Your task to perform on an android device: uninstall "Fetch Rewards" Image 0: 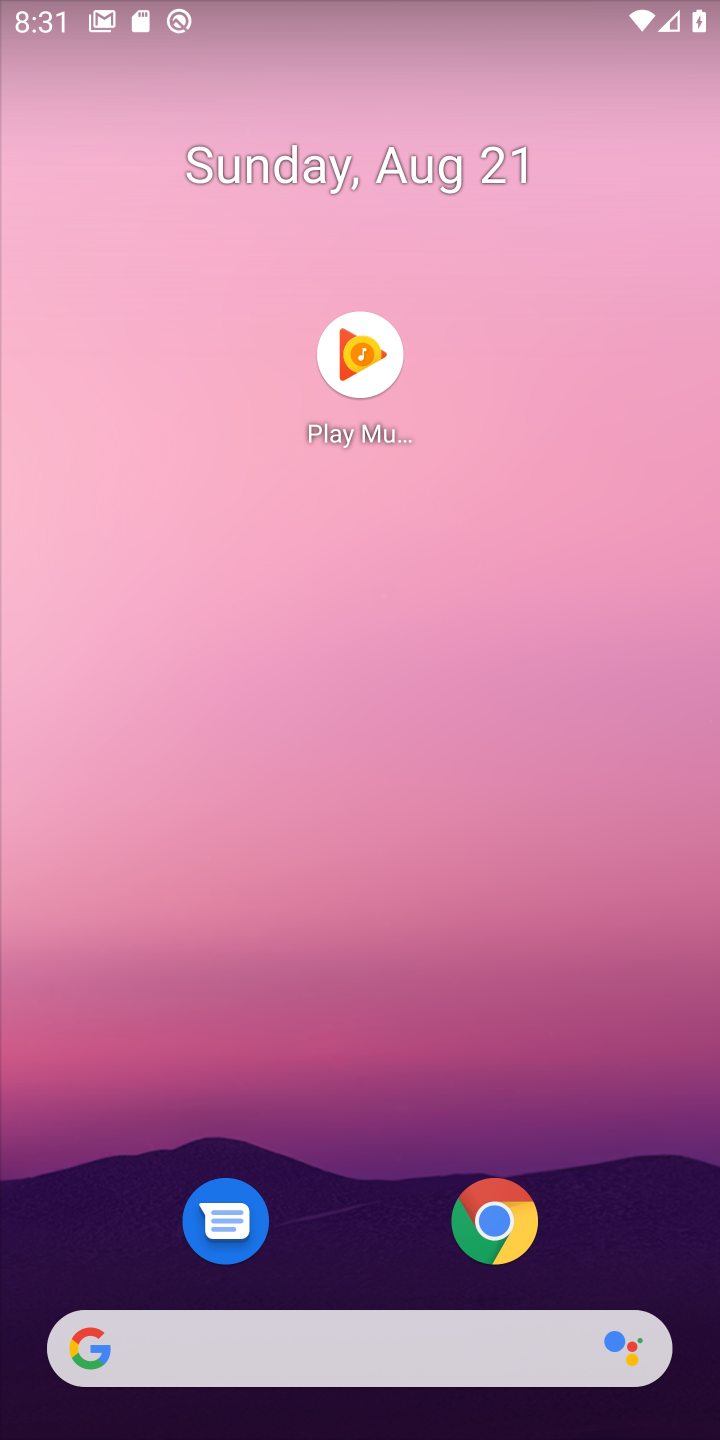
Step 0: drag from (348, 1145) to (348, 145)
Your task to perform on an android device: uninstall "Fetch Rewards" Image 1: 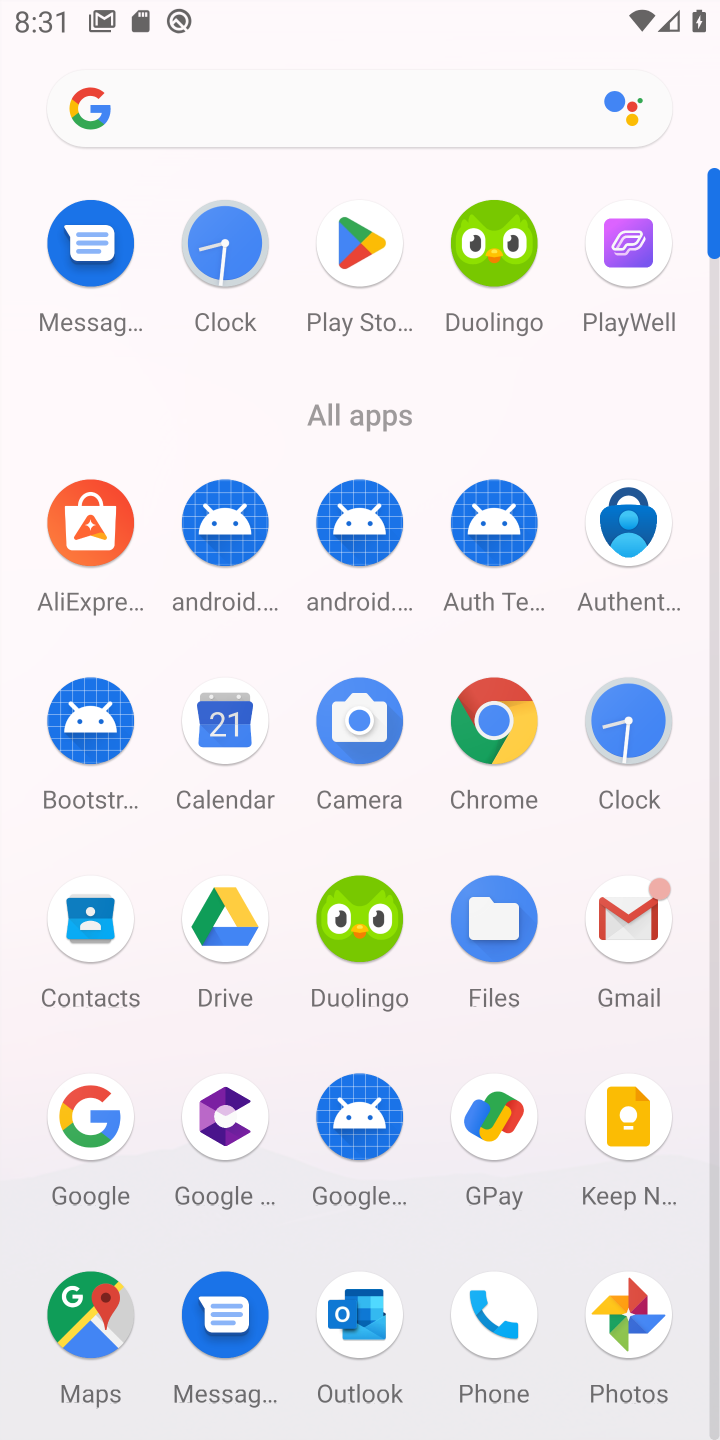
Step 1: click (360, 258)
Your task to perform on an android device: uninstall "Fetch Rewards" Image 2: 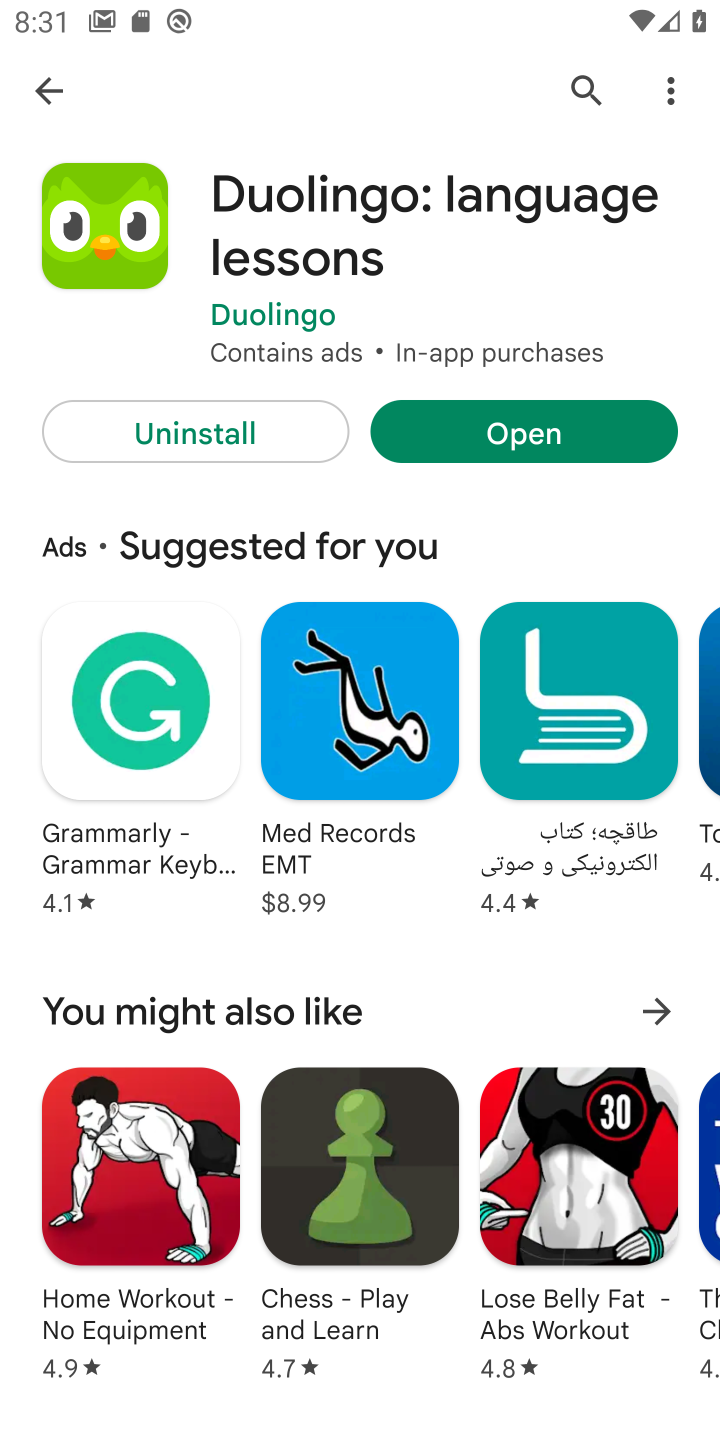
Step 2: click (583, 81)
Your task to perform on an android device: uninstall "Fetch Rewards" Image 3: 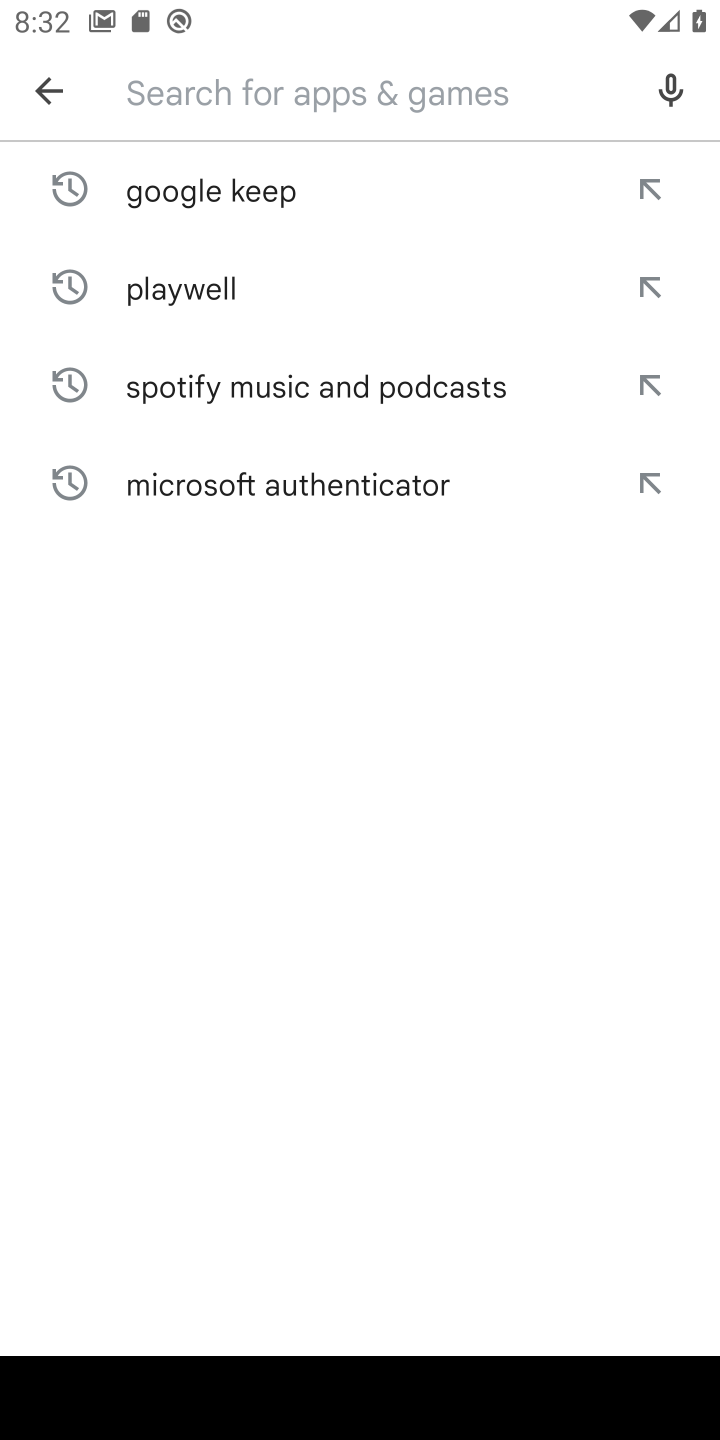
Step 3: type "Fetch Rewards"
Your task to perform on an android device: uninstall "Fetch Rewards" Image 4: 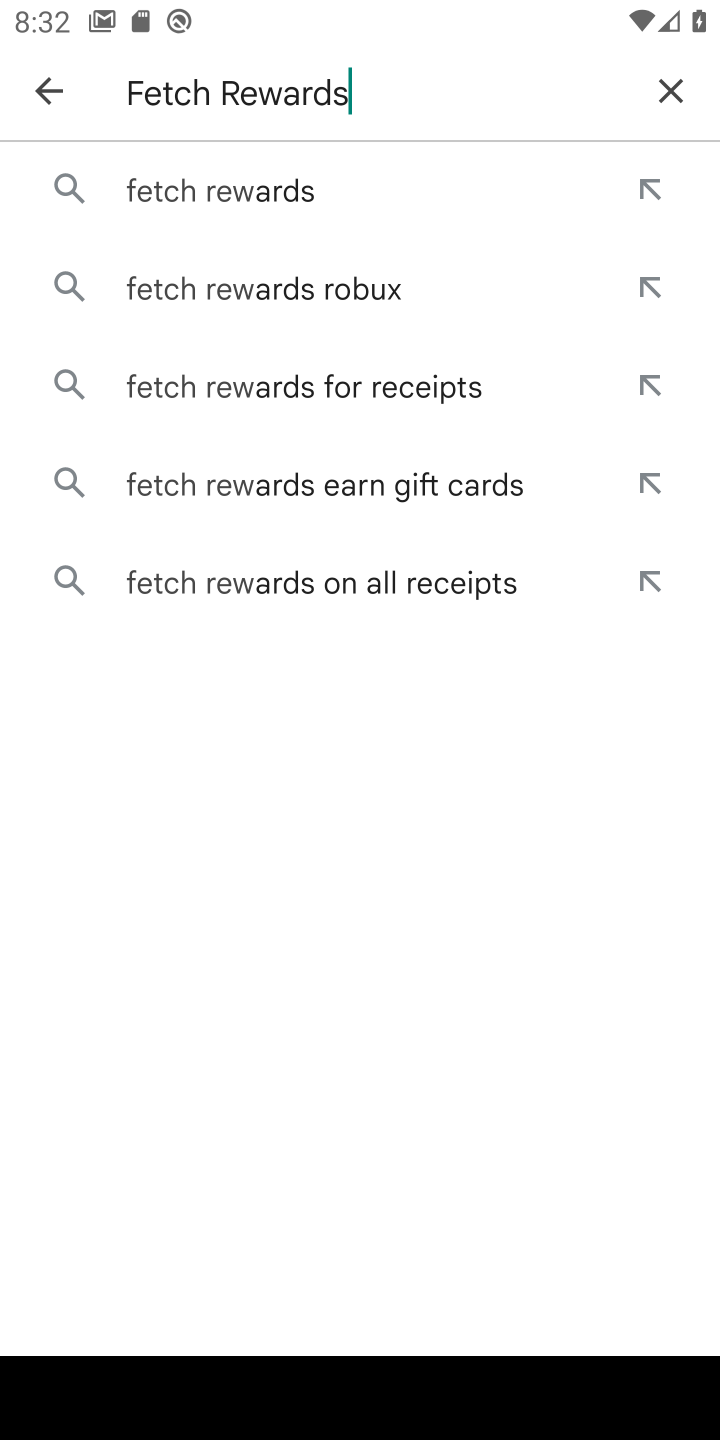
Step 4: type ""
Your task to perform on an android device: uninstall "Fetch Rewards" Image 5: 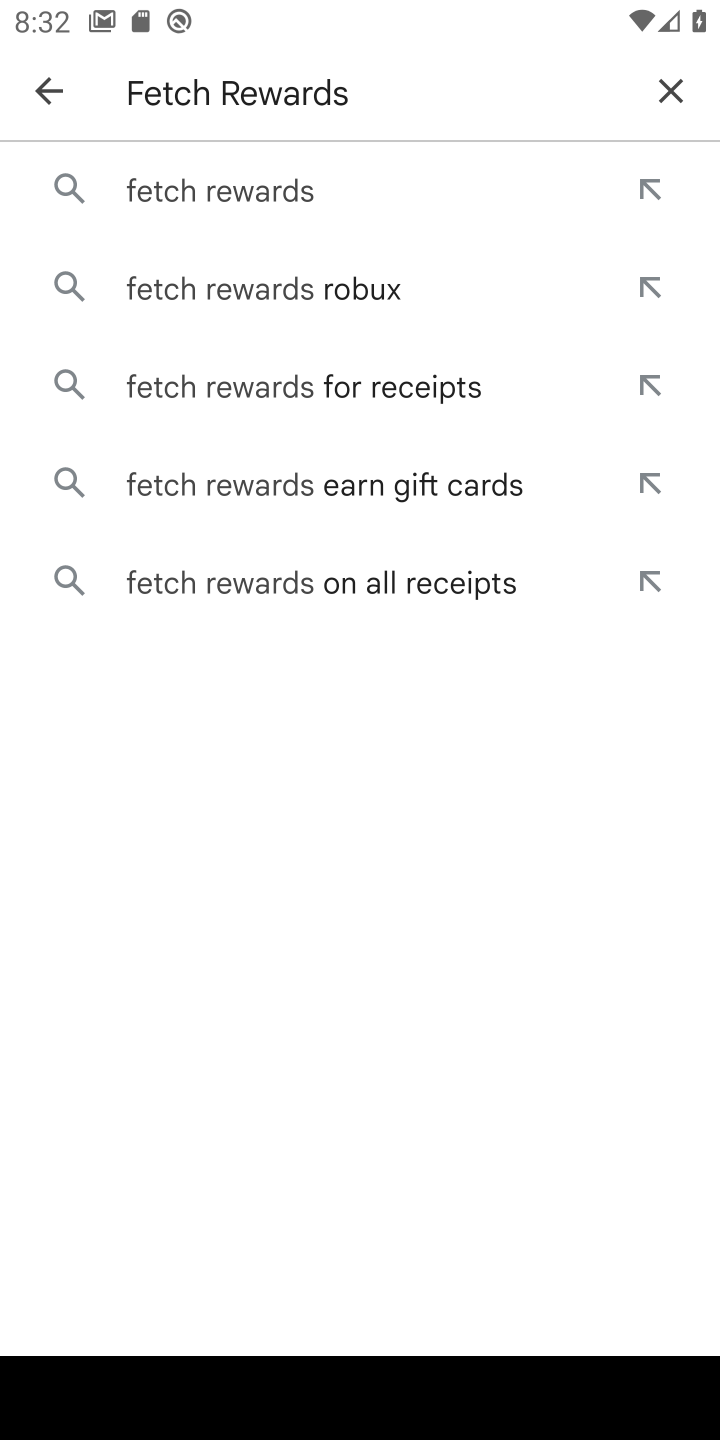
Step 5: click (241, 193)
Your task to perform on an android device: uninstall "Fetch Rewards" Image 6: 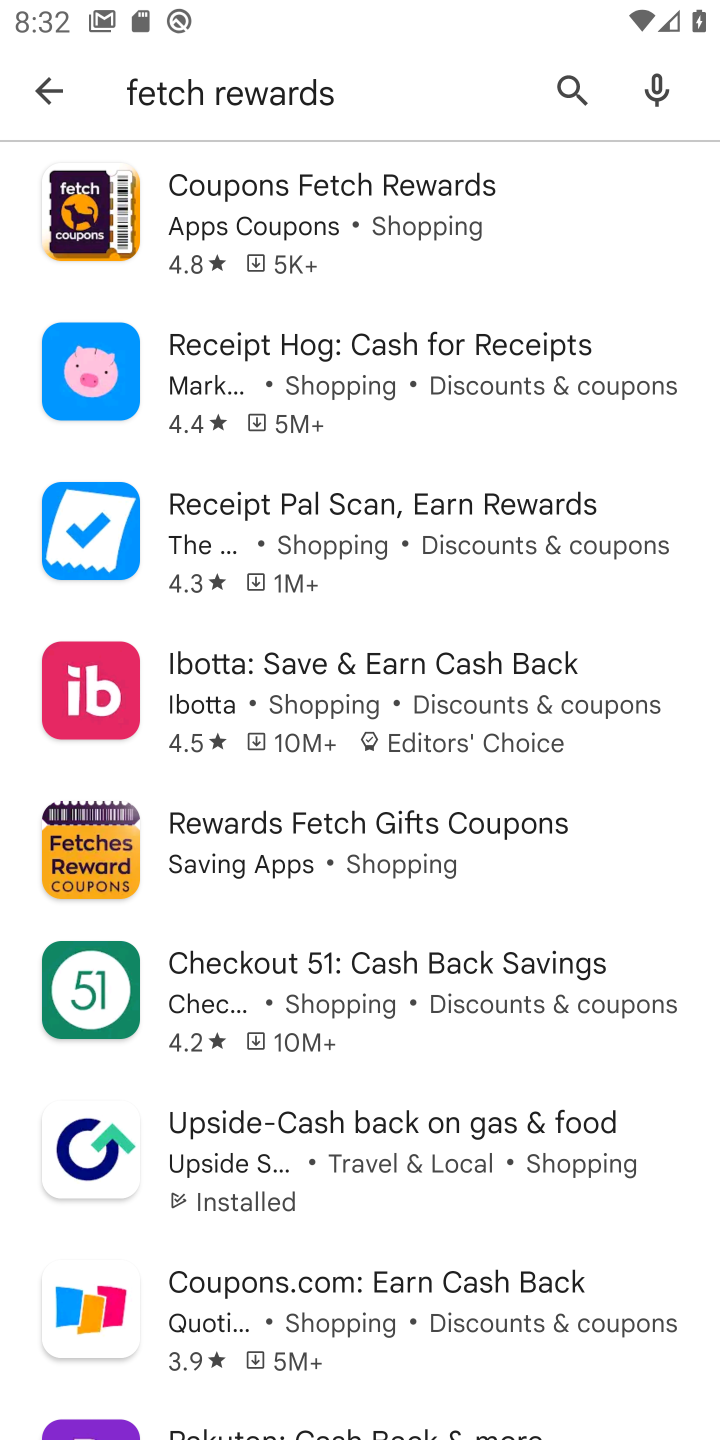
Step 6: task complete